Your task to perform on an android device: What's on my calendar today? Image 0: 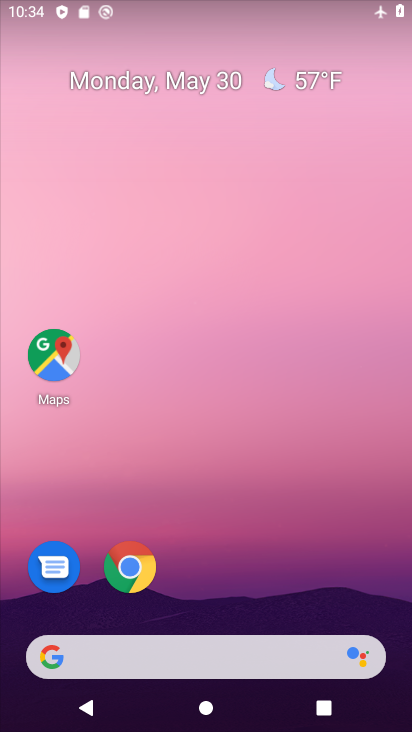
Step 0: drag from (194, 553) to (206, 220)
Your task to perform on an android device: What's on my calendar today? Image 1: 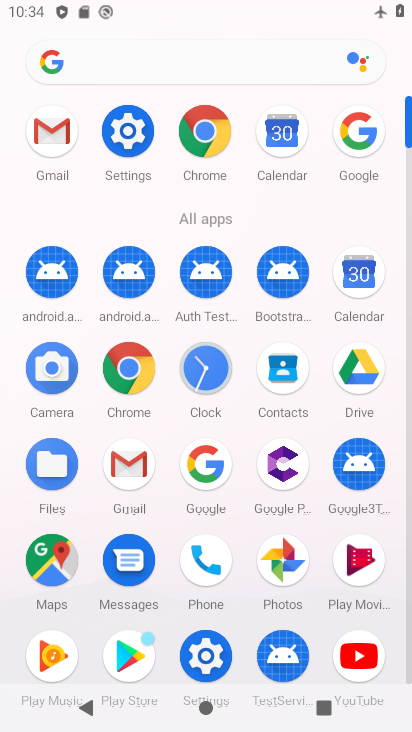
Step 1: click (285, 141)
Your task to perform on an android device: What's on my calendar today? Image 2: 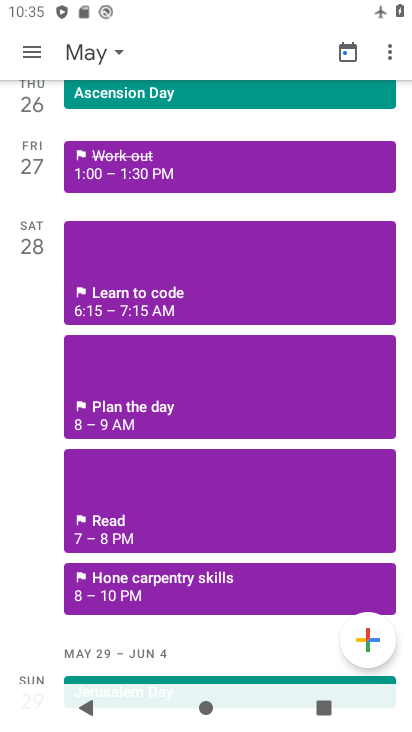
Step 2: click (115, 59)
Your task to perform on an android device: What's on my calendar today? Image 3: 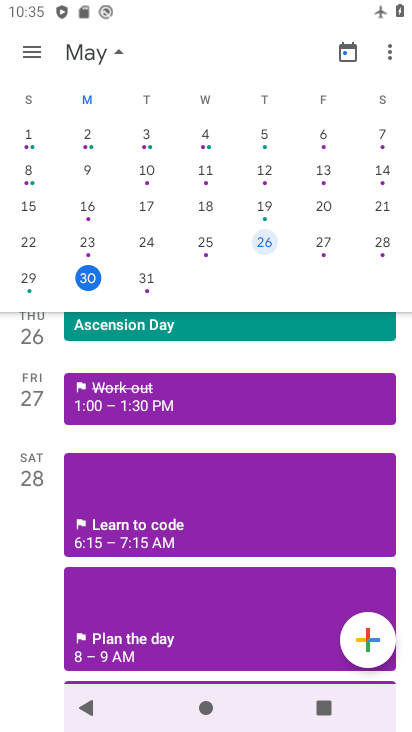
Step 3: click (96, 274)
Your task to perform on an android device: What's on my calendar today? Image 4: 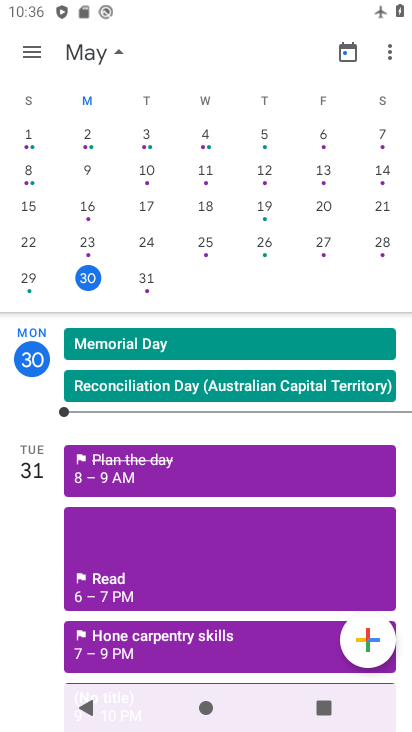
Step 4: click (96, 284)
Your task to perform on an android device: What's on my calendar today? Image 5: 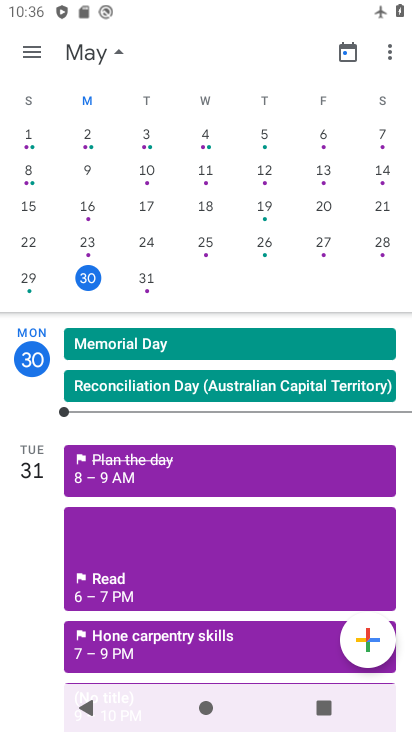
Step 5: task complete